Your task to perform on an android device: Open calendar and show me the second week of next month Image 0: 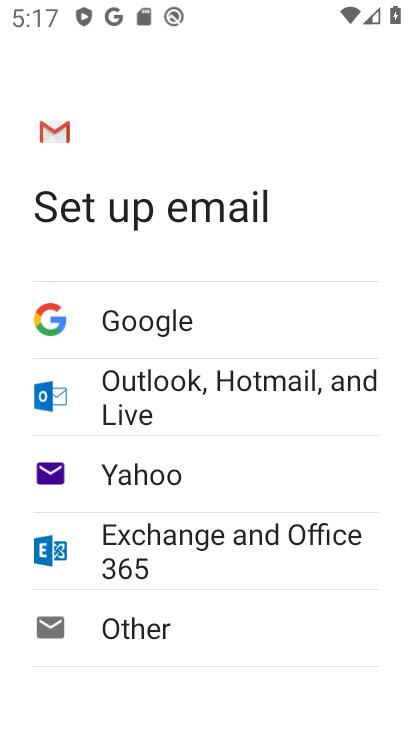
Step 0: press back button
Your task to perform on an android device: Open calendar and show me the second week of next month Image 1: 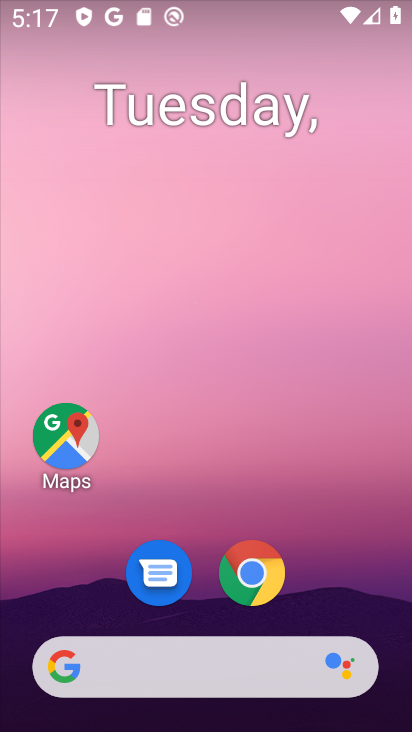
Step 1: drag from (317, 549) to (260, 37)
Your task to perform on an android device: Open calendar and show me the second week of next month Image 2: 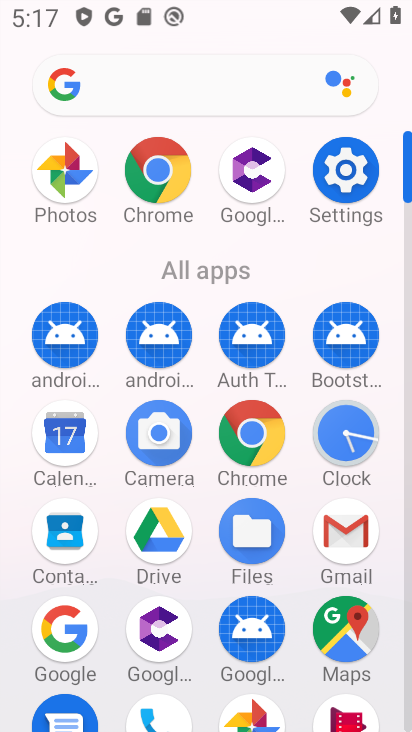
Step 2: drag from (20, 622) to (20, 218)
Your task to perform on an android device: Open calendar and show me the second week of next month Image 3: 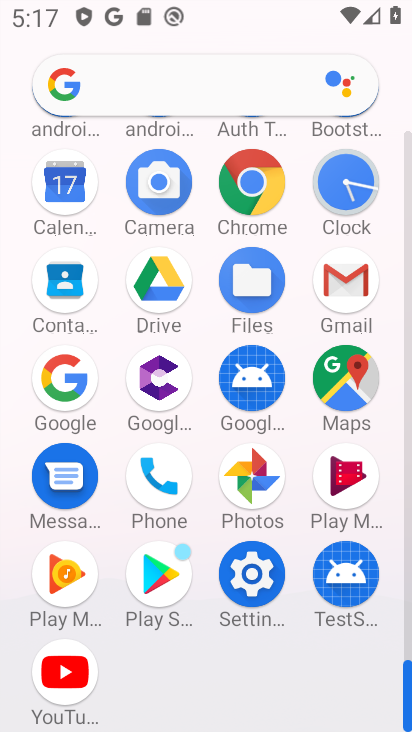
Step 3: drag from (14, 628) to (0, 322)
Your task to perform on an android device: Open calendar and show me the second week of next month Image 4: 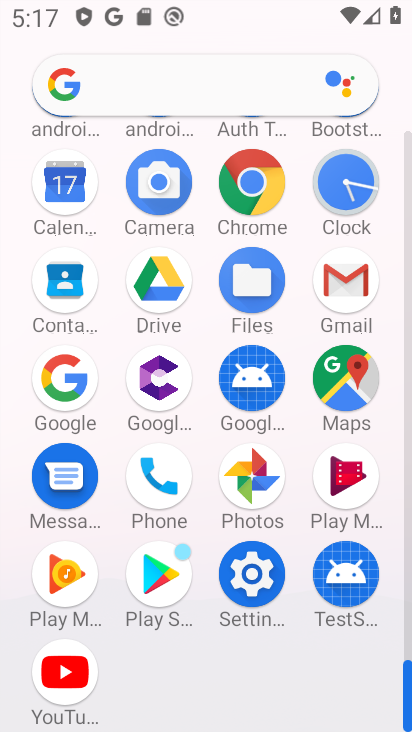
Step 4: drag from (20, 274) to (20, 413)
Your task to perform on an android device: Open calendar and show me the second week of next month Image 5: 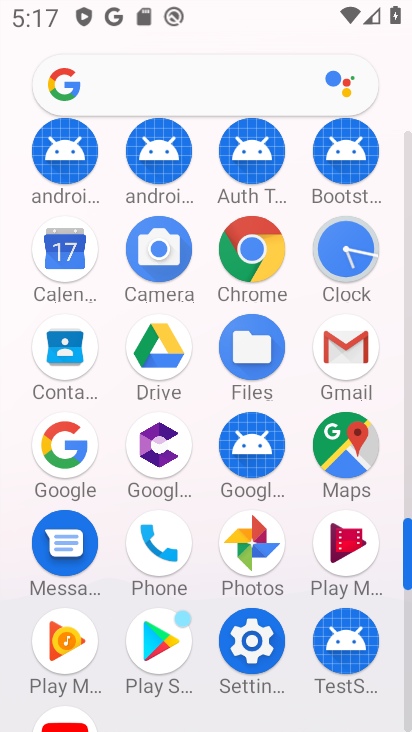
Step 5: click (65, 246)
Your task to perform on an android device: Open calendar and show me the second week of next month Image 6: 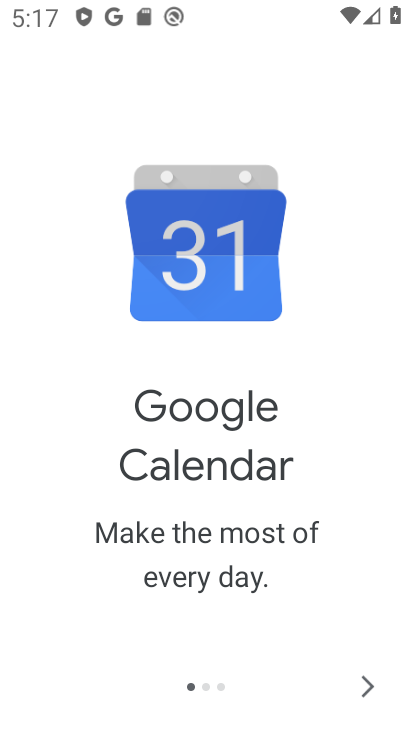
Step 6: click (377, 684)
Your task to perform on an android device: Open calendar and show me the second week of next month Image 7: 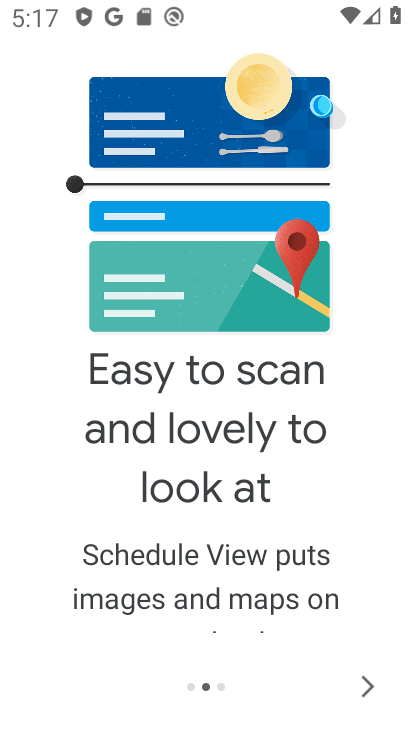
Step 7: click (369, 682)
Your task to perform on an android device: Open calendar and show me the second week of next month Image 8: 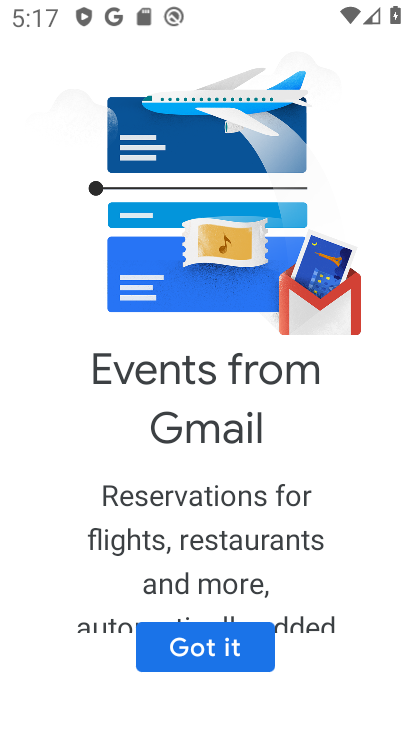
Step 8: click (218, 645)
Your task to perform on an android device: Open calendar and show me the second week of next month Image 9: 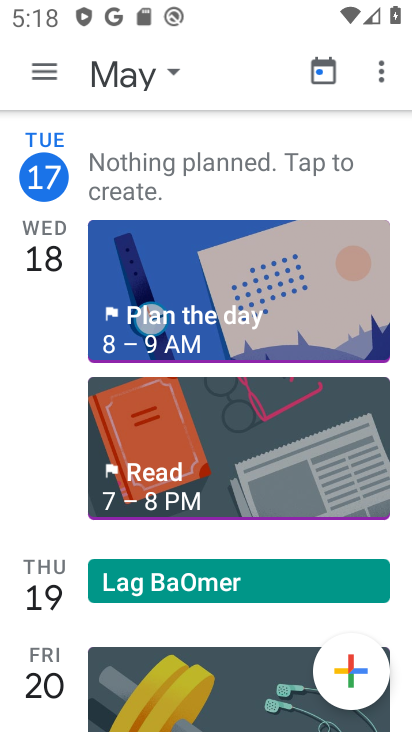
Step 9: click (135, 73)
Your task to perform on an android device: Open calendar and show me the second week of next month Image 10: 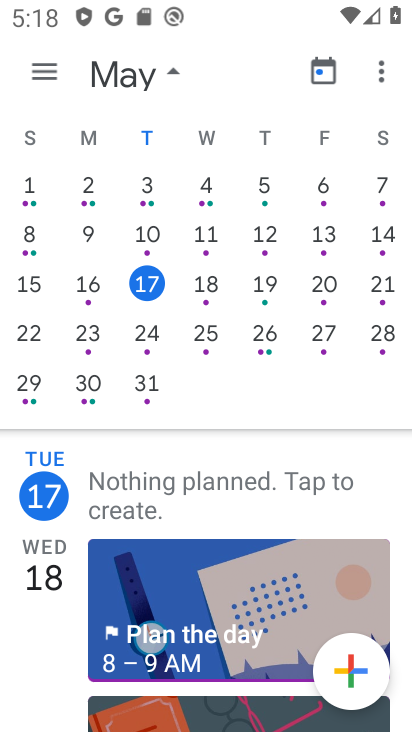
Step 10: drag from (341, 212) to (5, 262)
Your task to perform on an android device: Open calendar and show me the second week of next month Image 11: 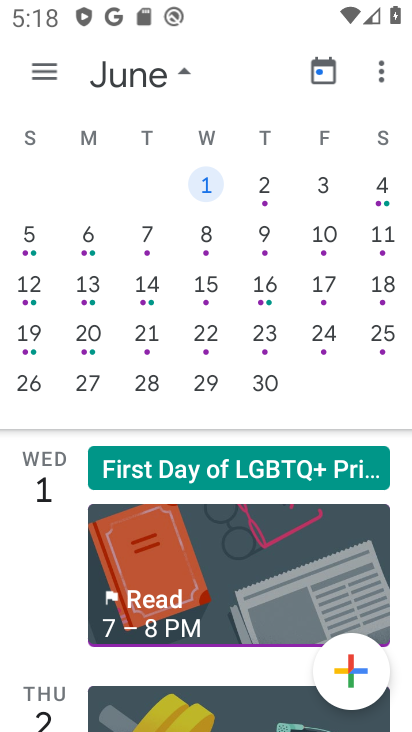
Step 11: click (27, 288)
Your task to perform on an android device: Open calendar and show me the second week of next month Image 12: 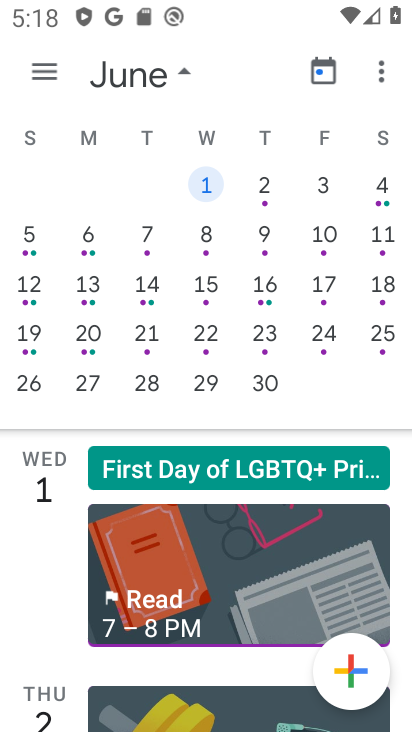
Step 12: click (30, 281)
Your task to perform on an android device: Open calendar and show me the second week of next month Image 13: 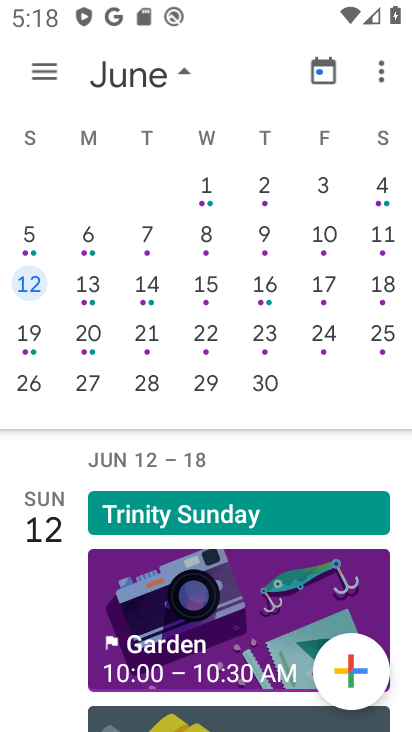
Step 13: click (39, 72)
Your task to perform on an android device: Open calendar and show me the second week of next month Image 14: 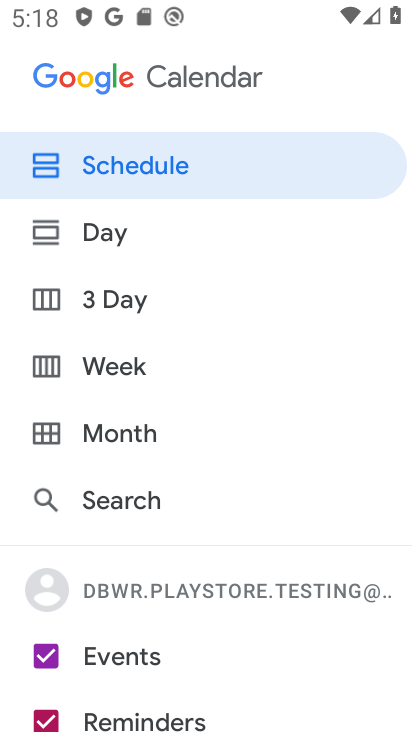
Step 14: click (129, 362)
Your task to perform on an android device: Open calendar and show me the second week of next month Image 15: 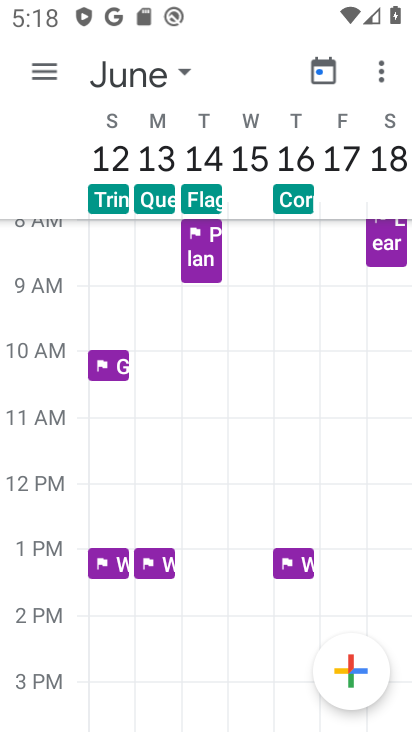
Step 15: task complete